Your task to perform on an android device: open device folders in google photos Image 0: 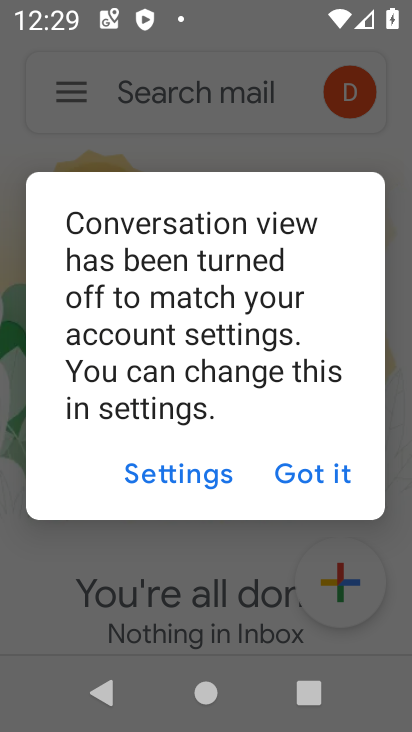
Step 0: press home button
Your task to perform on an android device: open device folders in google photos Image 1: 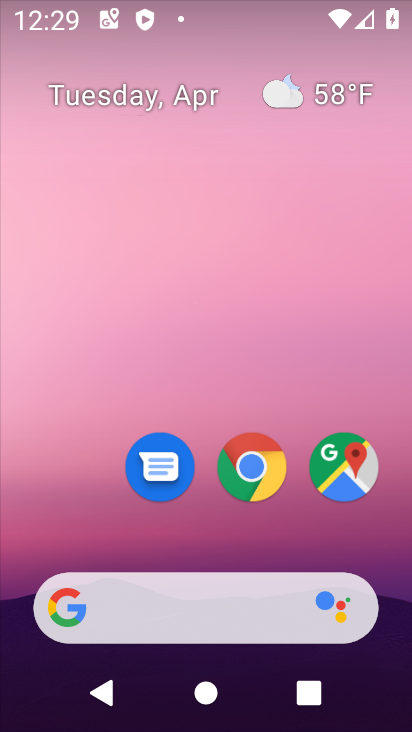
Step 1: drag from (201, 528) to (198, 50)
Your task to perform on an android device: open device folders in google photos Image 2: 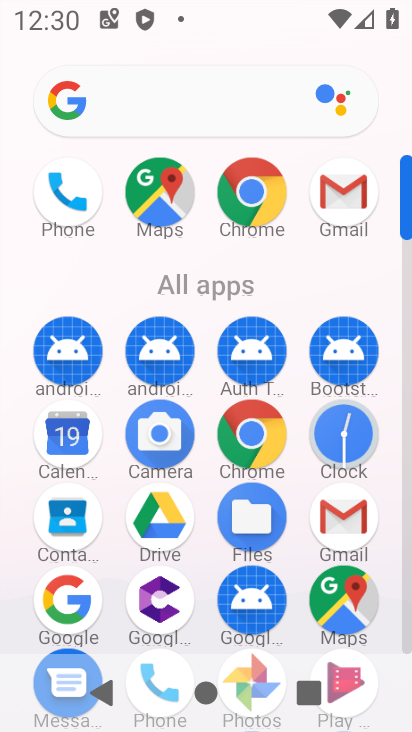
Step 2: drag from (205, 615) to (193, 90)
Your task to perform on an android device: open device folders in google photos Image 3: 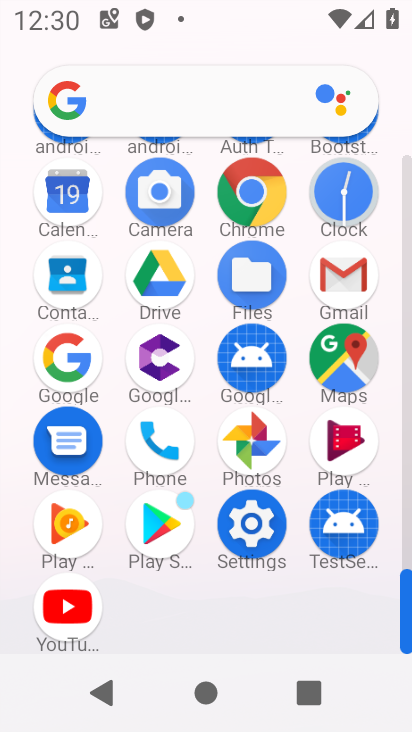
Step 3: click (269, 457)
Your task to perform on an android device: open device folders in google photos Image 4: 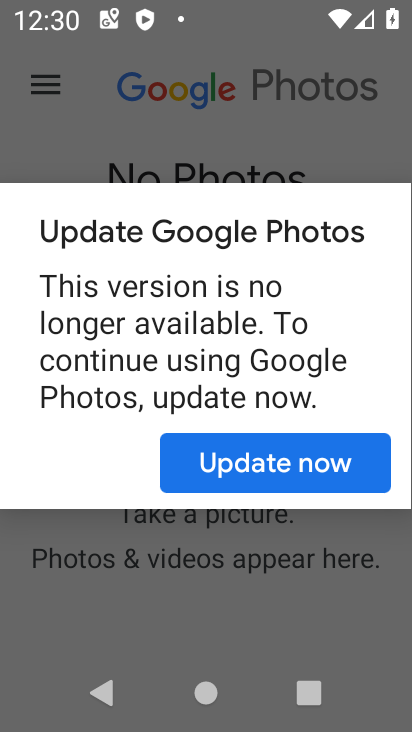
Step 4: click (255, 463)
Your task to perform on an android device: open device folders in google photos Image 5: 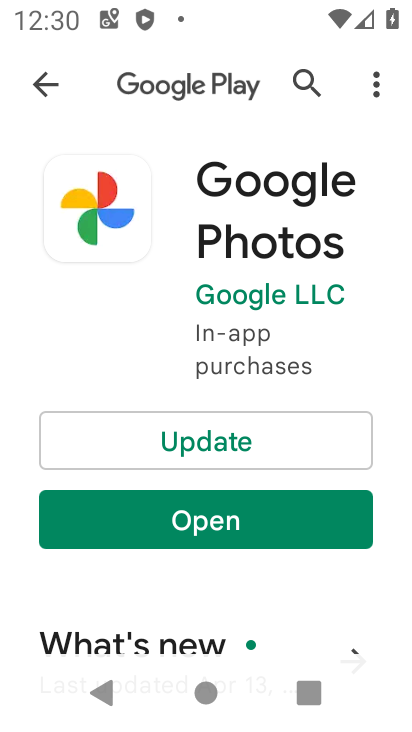
Step 5: click (282, 533)
Your task to perform on an android device: open device folders in google photos Image 6: 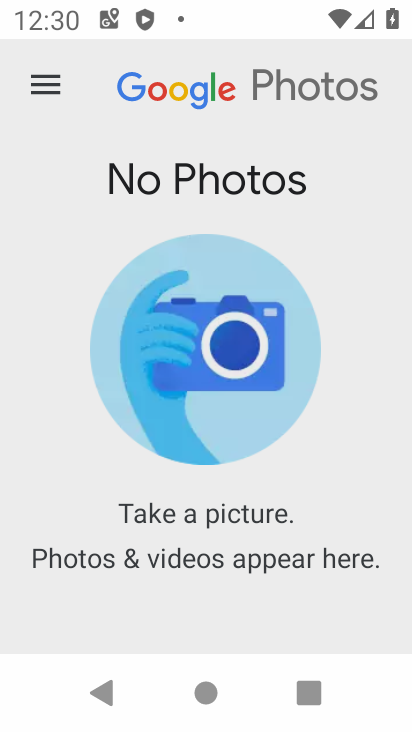
Step 6: click (37, 89)
Your task to perform on an android device: open device folders in google photos Image 7: 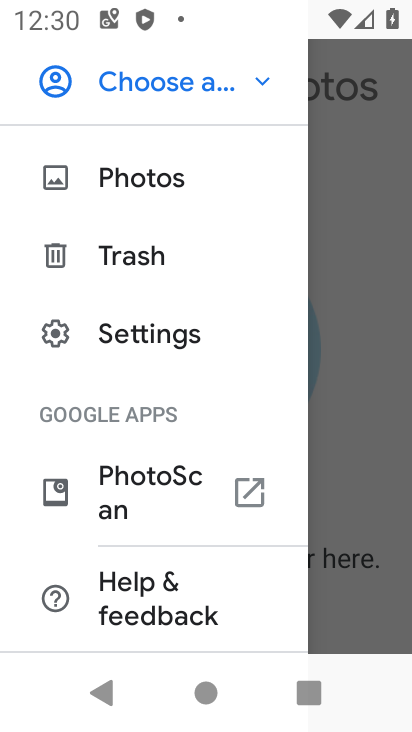
Step 7: drag from (153, 190) to (178, 579)
Your task to perform on an android device: open device folders in google photos Image 8: 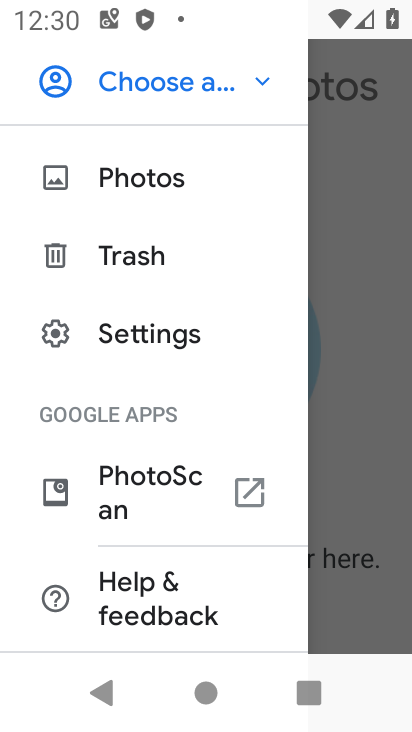
Step 8: click (148, 202)
Your task to perform on an android device: open device folders in google photos Image 9: 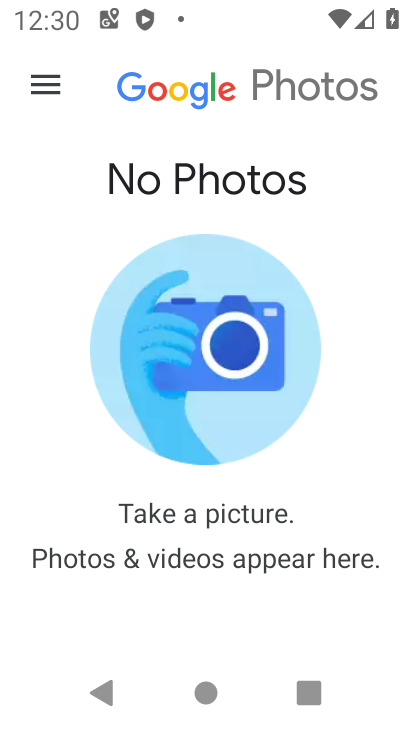
Step 9: click (32, 32)
Your task to perform on an android device: open device folders in google photos Image 10: 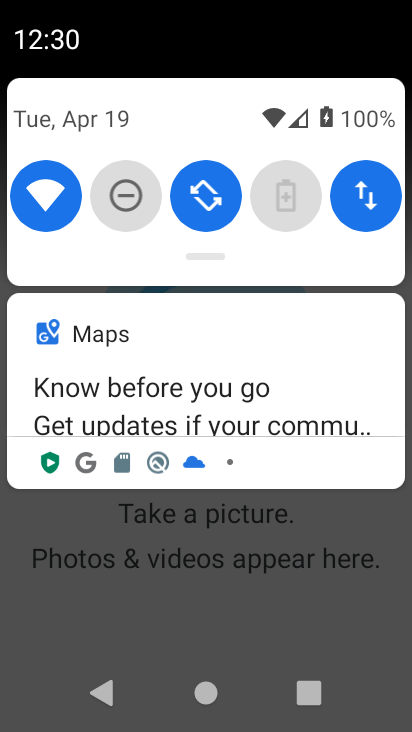
Step 10: click (47, 74)
Your task to perform on an android device: open device folders in google photos Image 11: 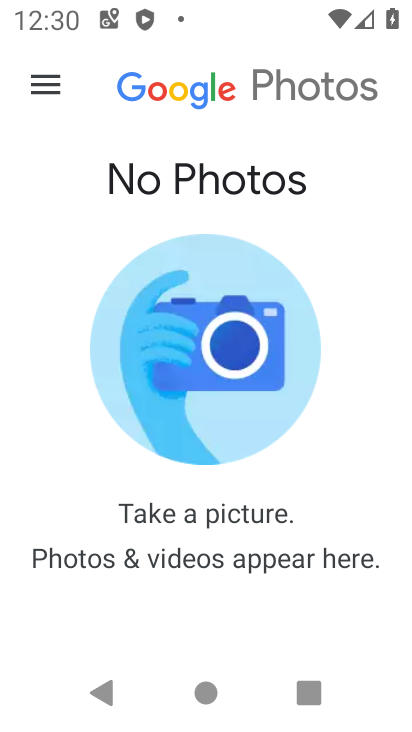
Step 11: task complete